Your task to perform on an android device: uninstall "Microsoft Authenticator" Image 0: 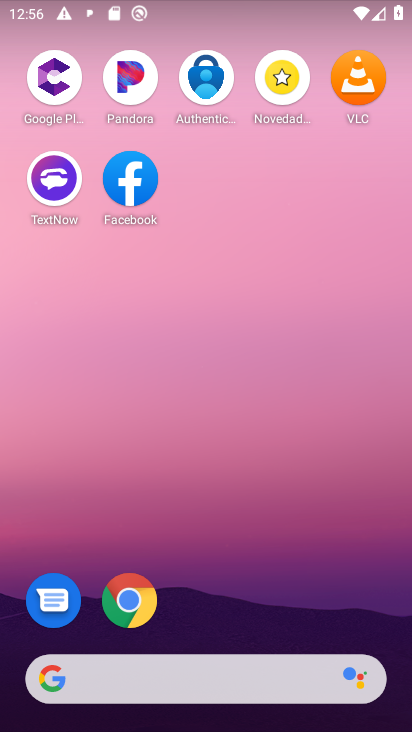
Step 0: drag from (266, 654) to (240, 208)
Your task to perform on an android device: uninstall "Microsoft Authenticator" Image 1: 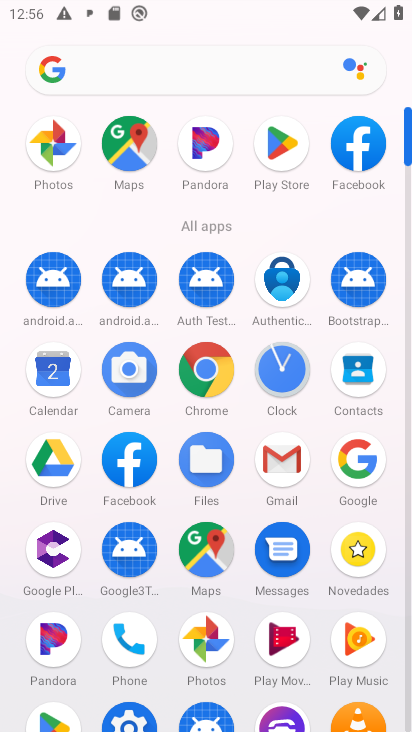
Step 1: click (290, 148)
Your task to perform on an android device: uninstall "Microsoft Authenticator" Image 2: 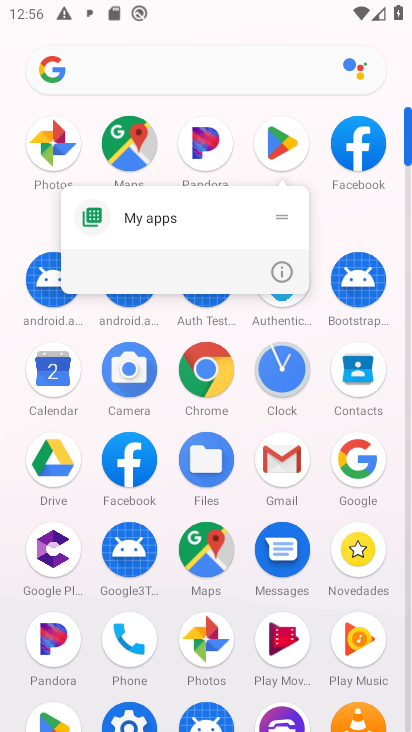
Step 2: click (265, 144)
Your task to perform on an android device: uninstall "Microsoft Authenticator" Image 3: 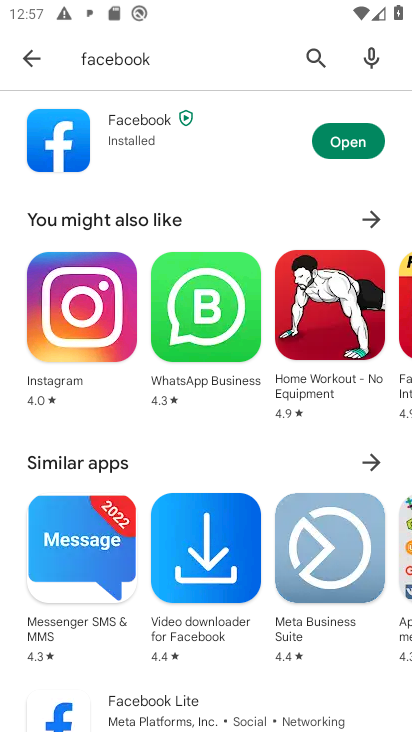
Step 3: click (314, 52)
Your task to perform on an android device: uninstall "Microsoft Authenticator" Image 4: 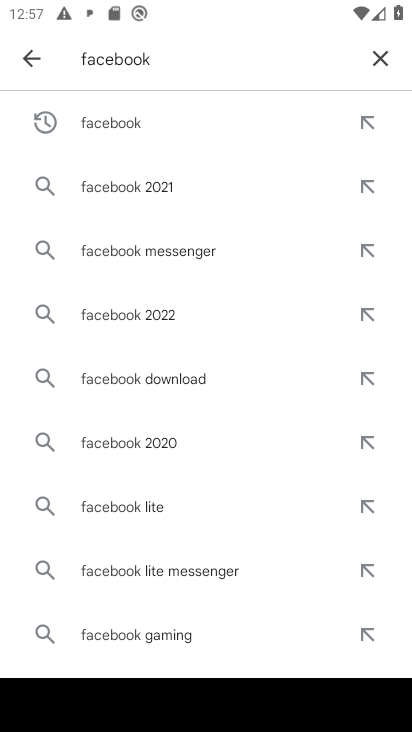
Step 4: click (375, 61)
Your task to perform on an android device: uninstall "Microsoft Authenticator" Image 5: 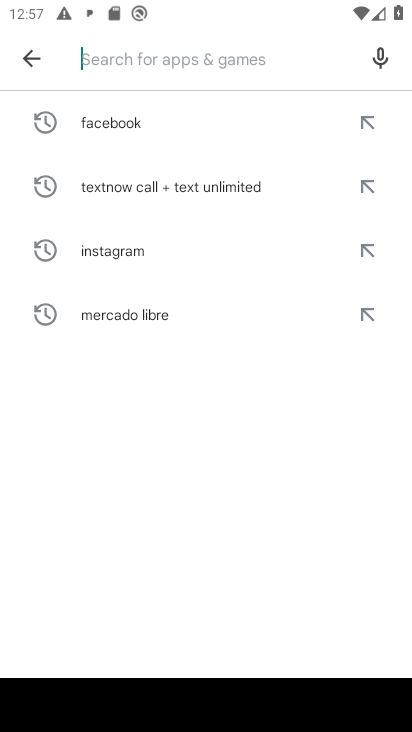
Step 5: type "Microsoft Authenticator"
Your task to perform on an android device: uninstall "Microsoft Authenticator" Image 6: 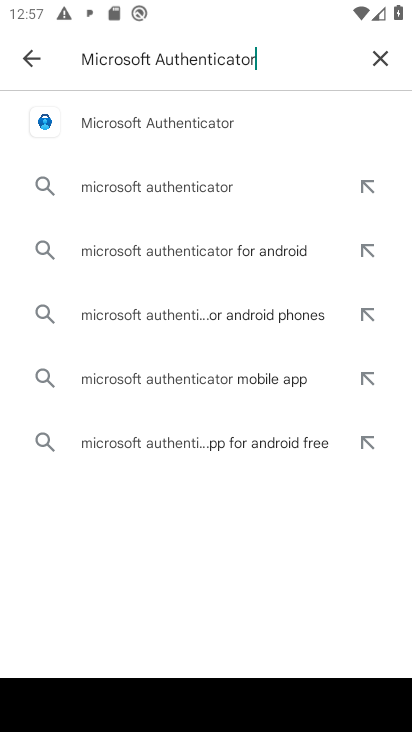
Step 6: click (172, 124)
Your task to perform on an android device: uninstall "Microsoft Authenticator" Image 7: 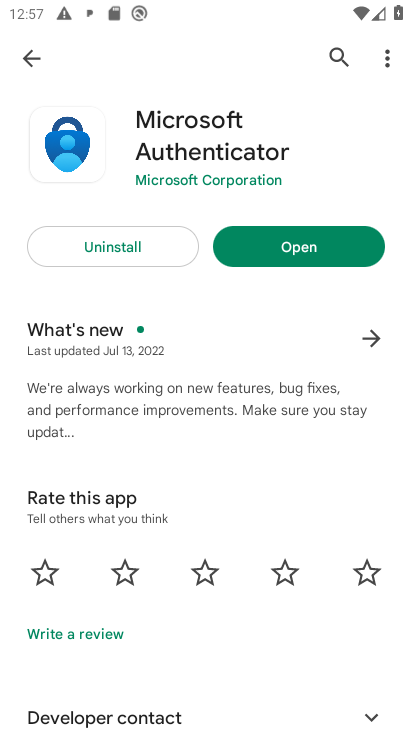
Step 7: task complete